Your task to perform on an android device: Go to notification settings Image 0: 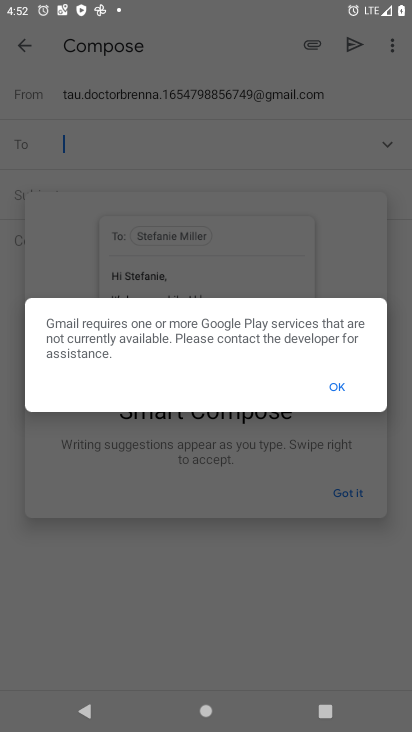
Step 0: press home button
Your task to perform on an android device: Go to notification settings Image 1: 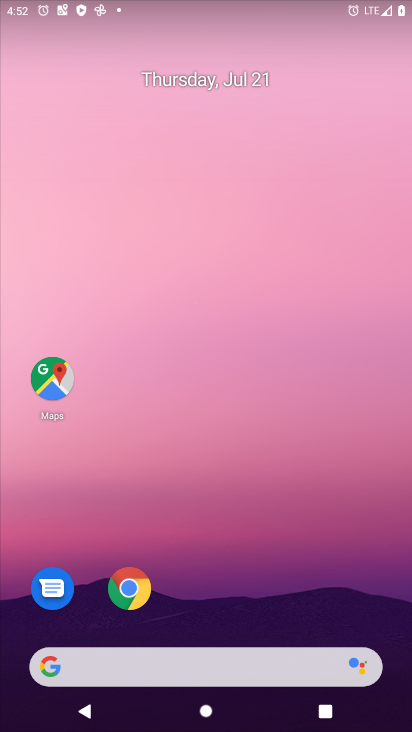
Step 1: drag from (234, 609) to (261, 82)
Your task to perform on an android device: Go to notification settings Image 2: 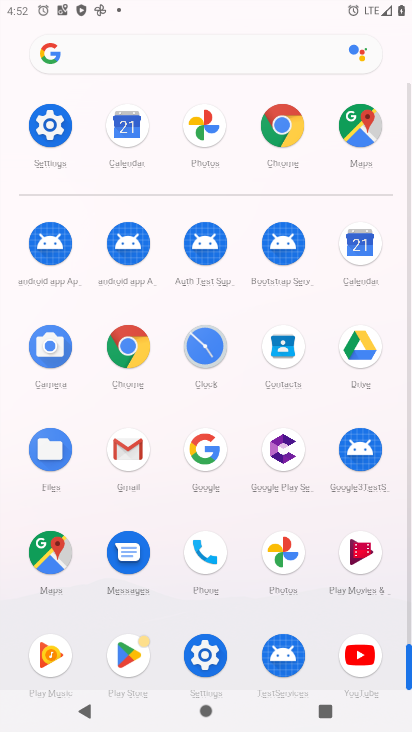
Step 2: click (187, 656)
Your task to perform on an android device: Go to notification settings Image 3: 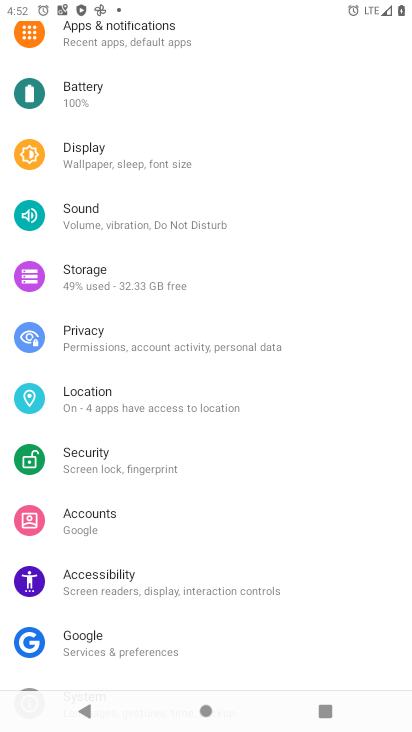
Step 3: drag from (219, 120) to (173, 665)
Your task to perform on an android device: Go to notification settings Image 4: 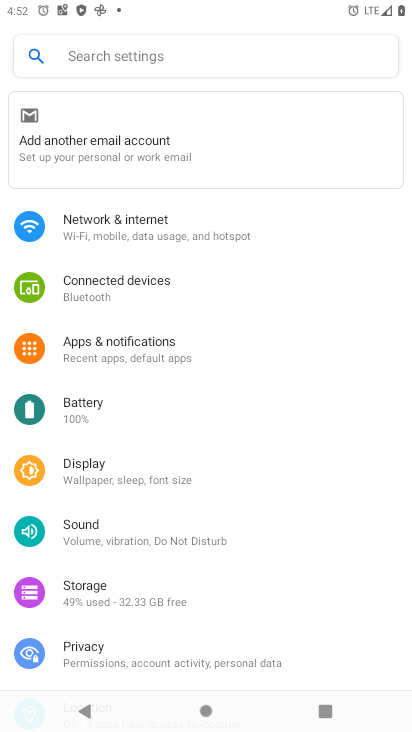
Step 4: click (68, 351)
Your task to perform on an android device: Go to notification settings Image 5: 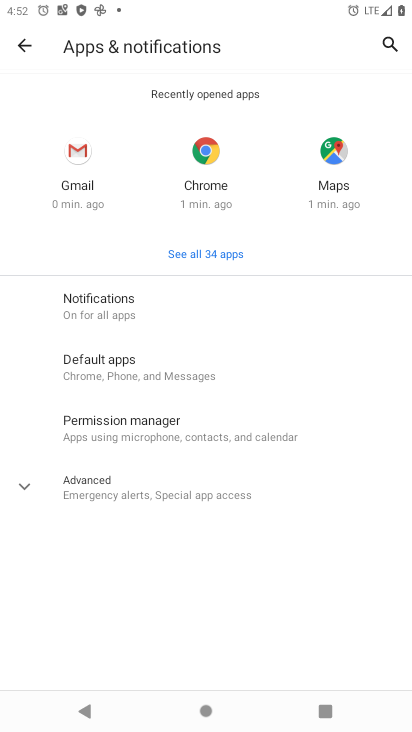
Step 5: click (70, 293)
Your task to perform on an android device: Go to notification settings Image 6: 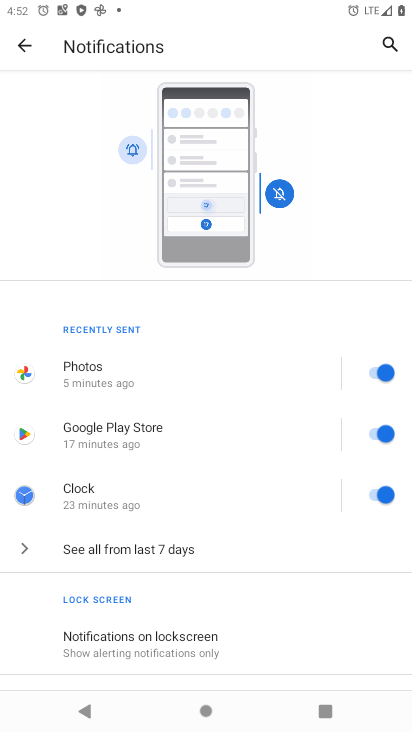
Step 6: task complete